Your task to perform on an android device: Open network settings Image 0: 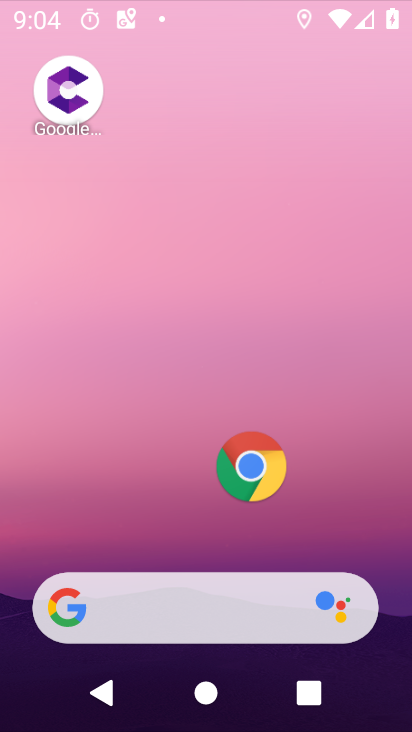
Step 0: click (360, 35)
Your task to perform on an android device: Open network settings Image 1: 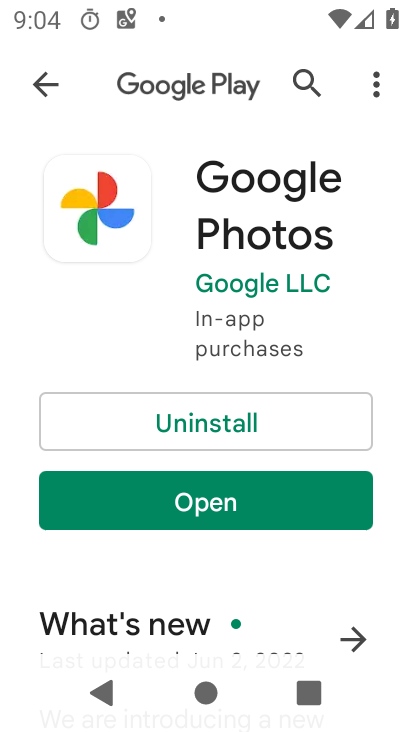
Step 1: drag from (210, 532) to (279, 134)
Your task to perform on an android device: Open network settings Image 2: 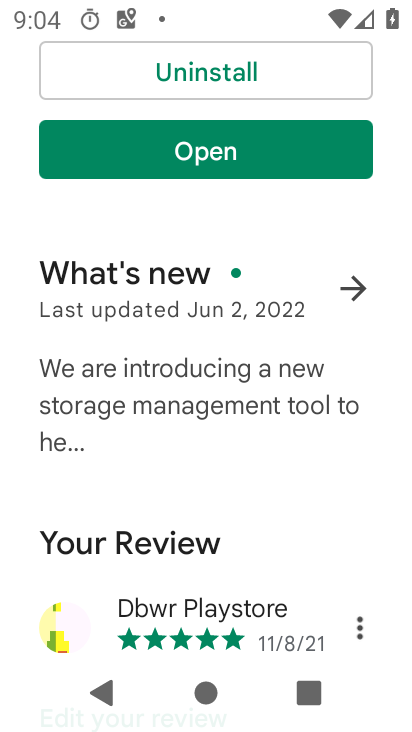
Step 2: press home button
Your task to perform on an android device: Open network settings Image 3: 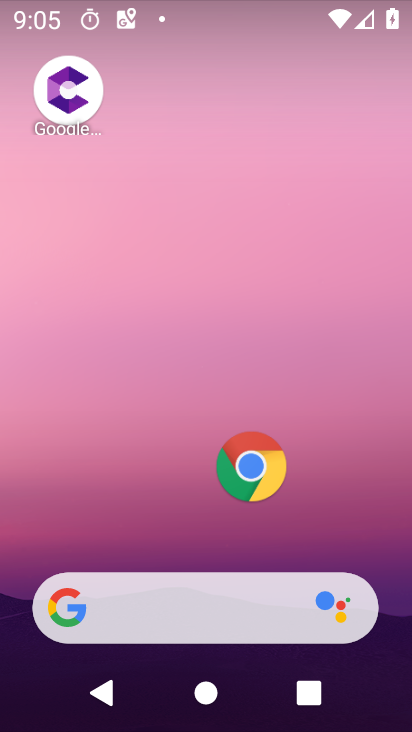
Step 3: drag from (174, 519) to (258, 51)
Your task to perform on an android device: Open network settings Image 4: 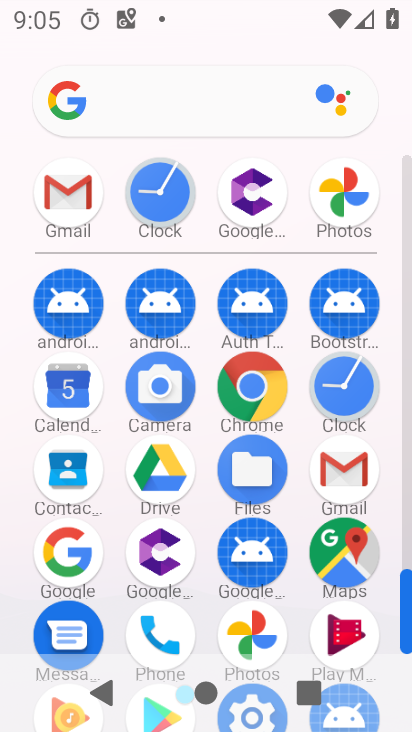
Step 4: drag from (204, 494) to (236, 142)
Your task to perform on an android device: Open network settings Image 5: 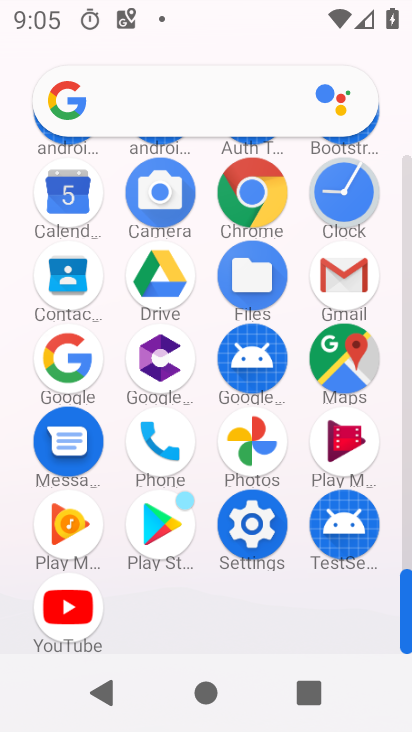
Step 5: click (260, 540)
Your task to perform on an android device: Open network settings Image 6: 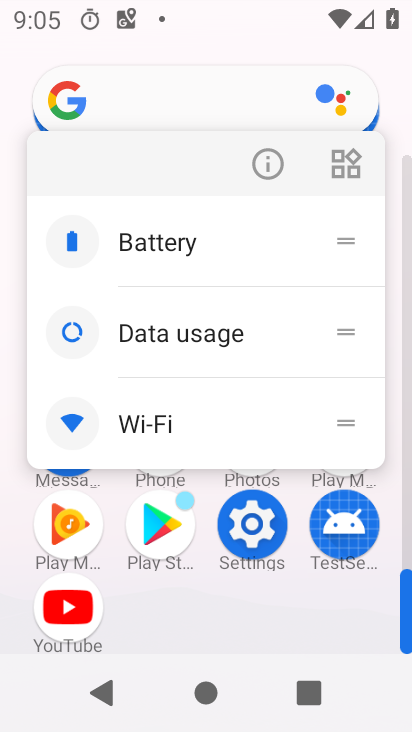
Step 6: click (266, 148)
Your task to perform on an android device: Open network settings Image 7: 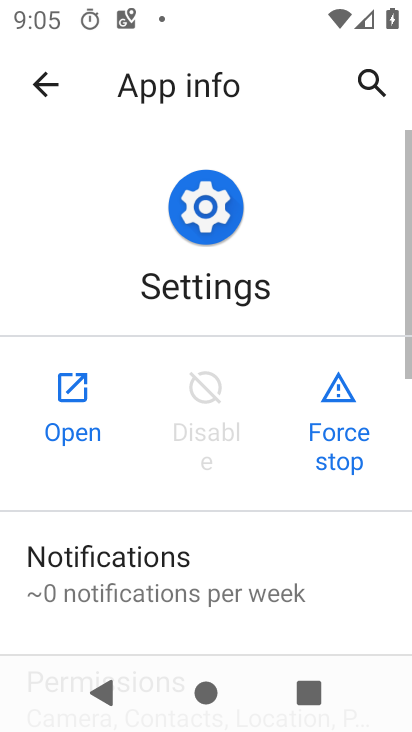
Step 7: click (76, 408)
Your task to perform on an android device: Open network settings Image 8: 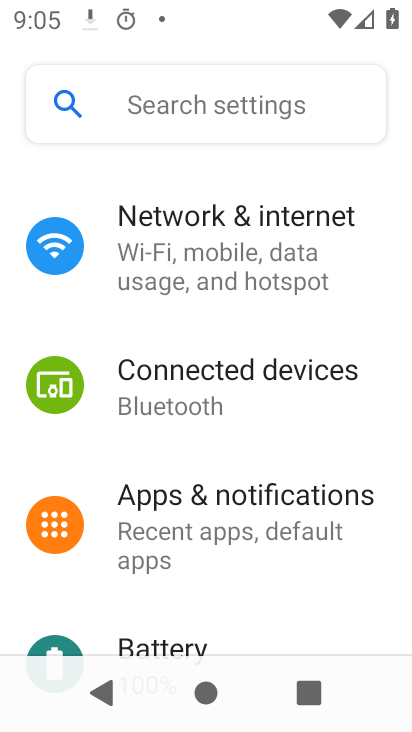
Step 8: drag from (237, 590) to (274, 261)
Your task to perform on an android device: Open network settings Image 9: 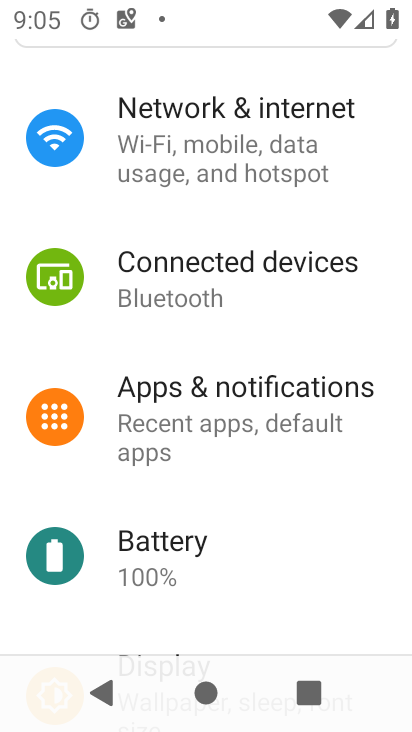
Step 9: click (276, 146)
Your task to perform on an android device: Open network settings Image 10: 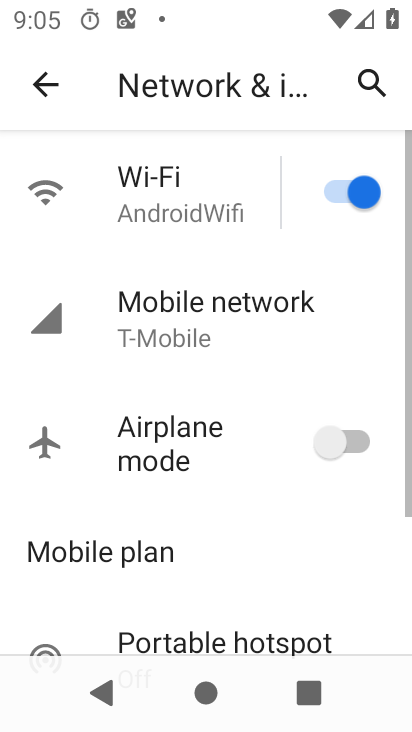
Step 10: task complete